Your task to perform on an android device: Do I have any events tomorrow? Image 0: 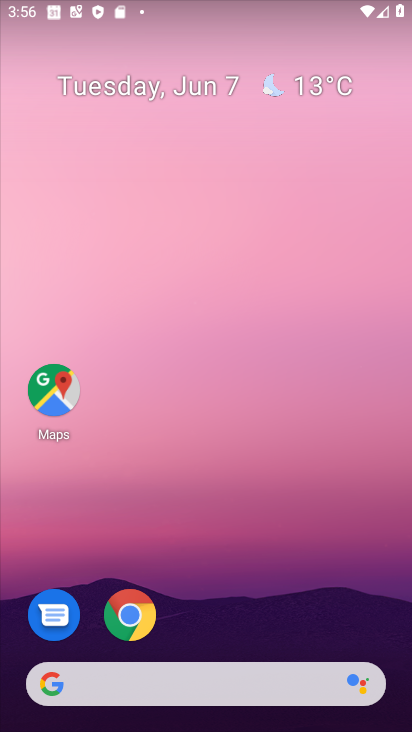
Step 0: drag from (192, 678) to (99, 70)
Your task to perform on an android device: Do I have any events tomorrow? Image 1: 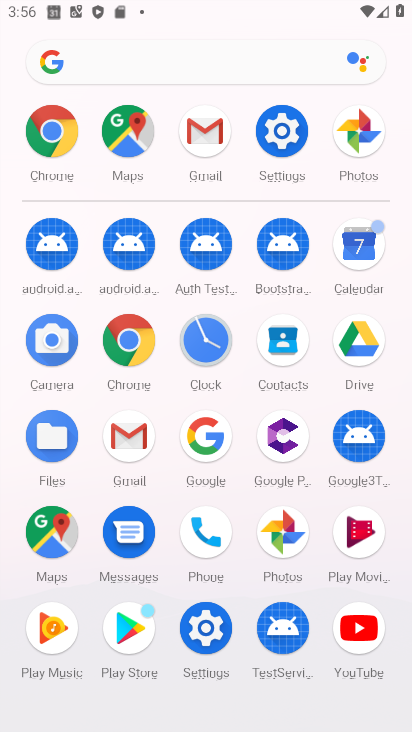
Step 1: click (45, 535)
Your task to perform on an android device: Do I have any events tomorrow? Image 2: 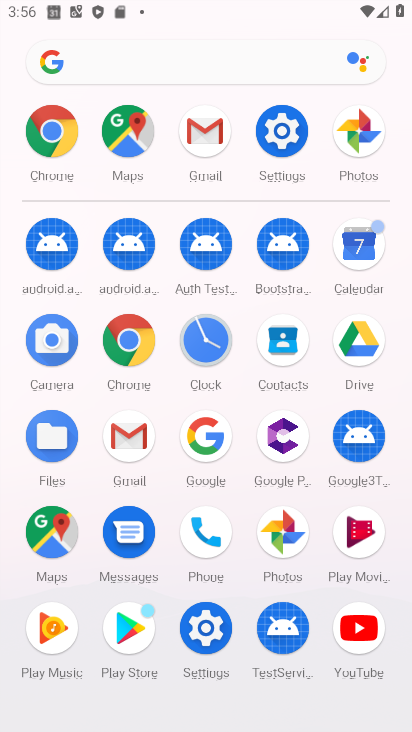
Step 2: click (45, 535)
Your task to perform on an android device: Do I have any events tomorrow? Image 3: 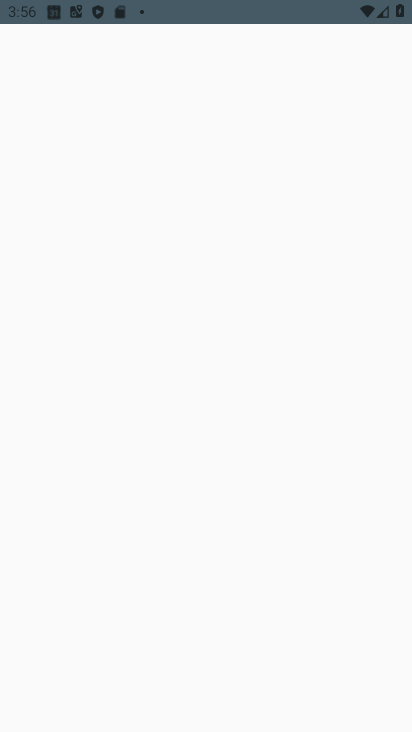
Step 3: click (45, 535)
Your task to perform on an android device: Do I have any events tomorrow? Image 4: 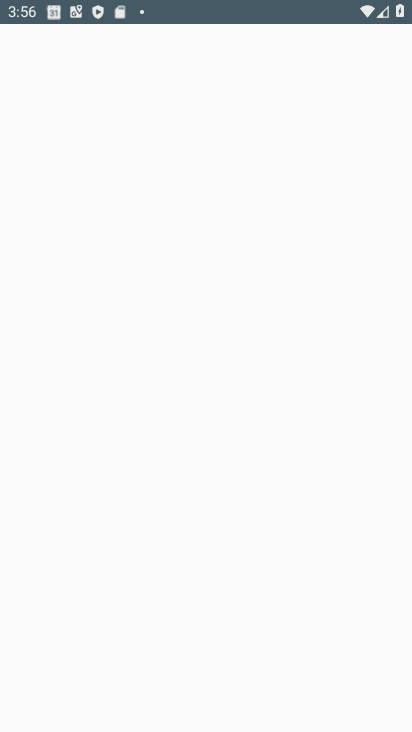
Step 4: click (48, 539)
Your task to perform on an android device: Do I have any events tomorrow? Image 5: 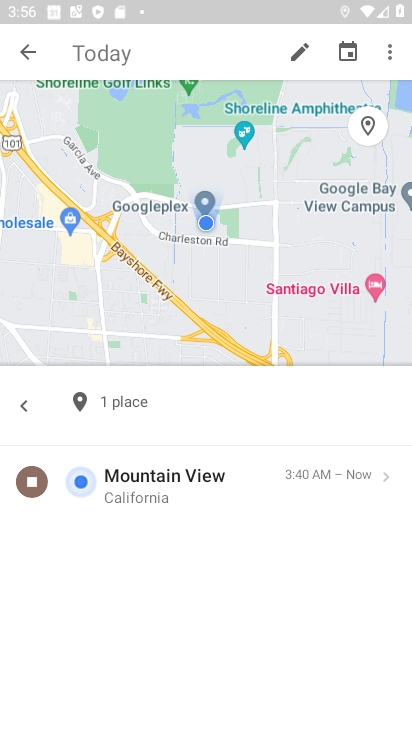
Step 5: click (23, 46)
Your task to perform on an android device: Do I have any events tomorrow? Image 6: 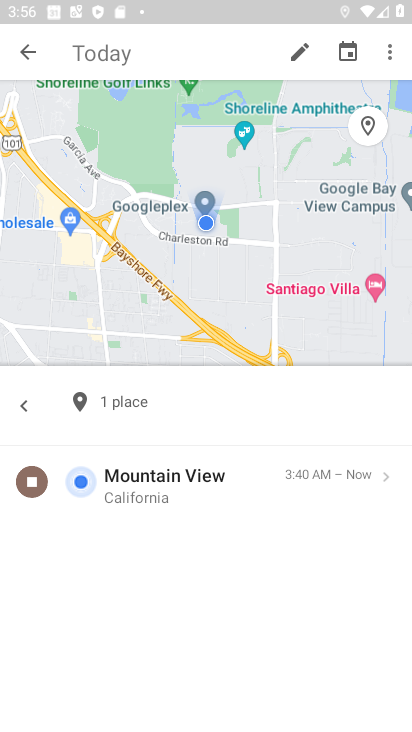
Step 6: click (23, 46)
Your task to perform on an android device: Do I have any events tomorrow? Image 7: 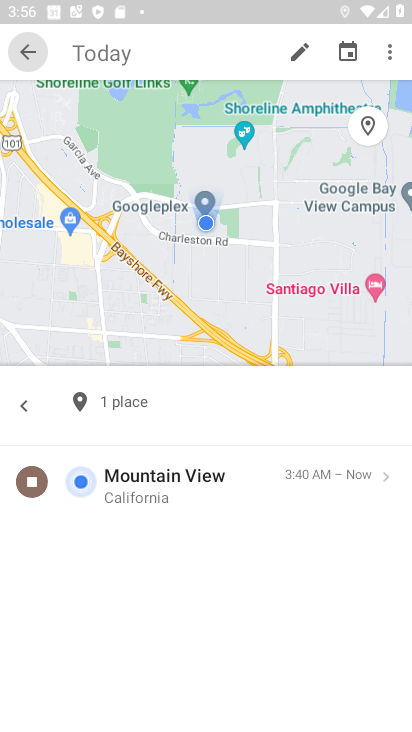
Step 7: click (24, 46)
Your task to perform on an android device: Do I have any events tomorrow? Image 8: 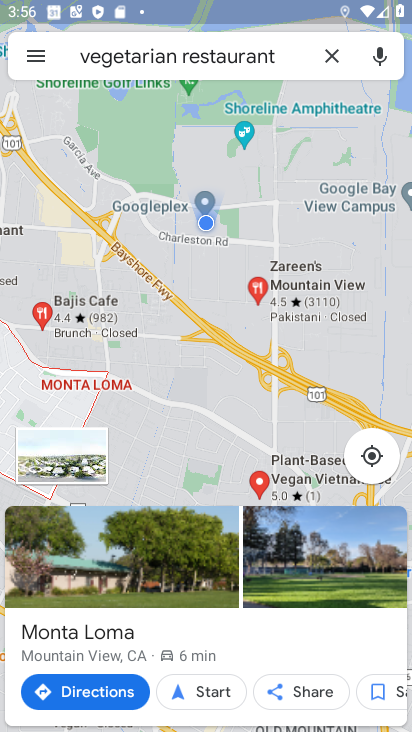
Step 8: press back button
Your task to perform on an android device: Do I have any events tomorrow? Image 9: 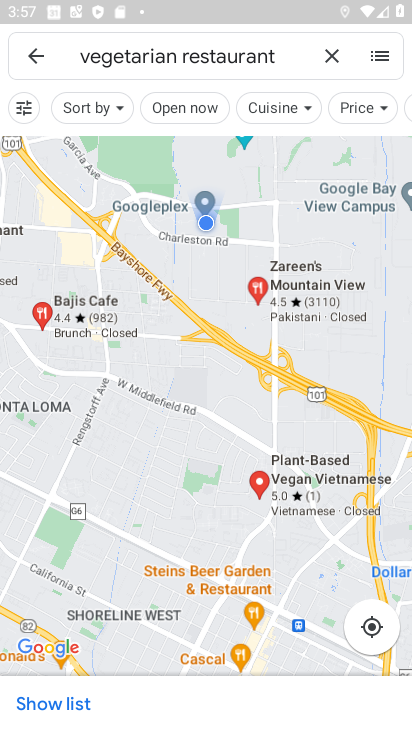
Step 9: press home button
Your task to perform on an android device: Do I have any events tomorrow? Image 10: 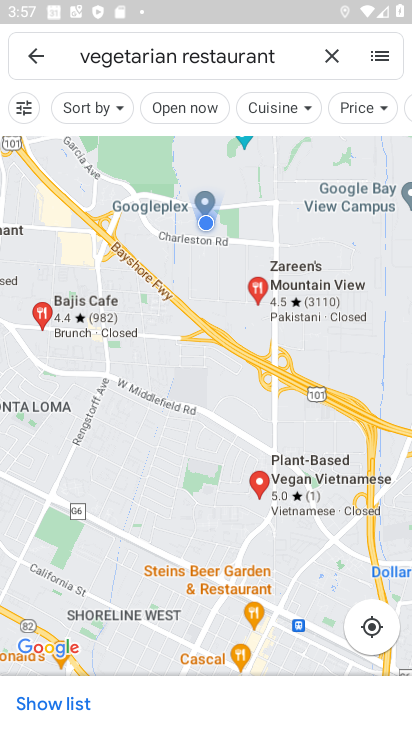
Step 10: press home button
Your task to perform on an android device: Do I have any events tomorrow? Image 11: 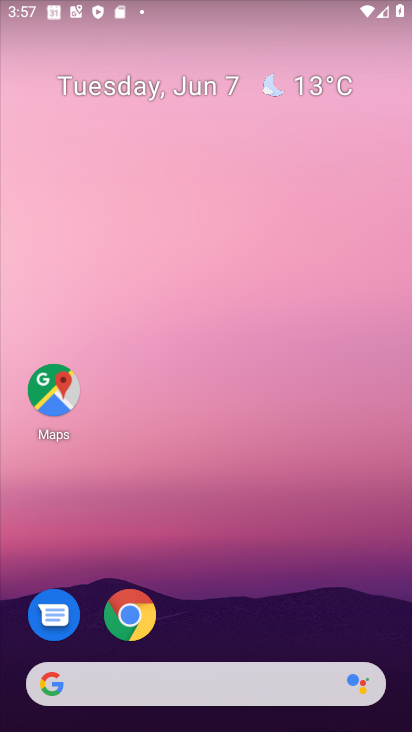
Step 11: drag from (212, 465) to (89, 39)
Your task to perform on an android device: Do I have any events tomorrow? Image 12: 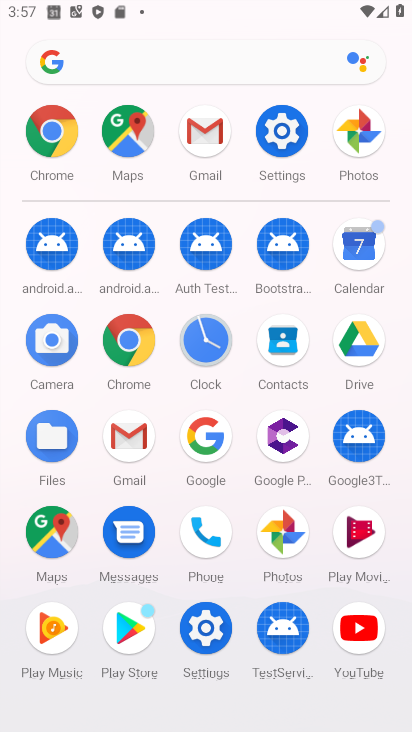
Step 12: click (351, 244)
Your task to perform on an android device: Do I have any events tomorrow? Image 13: 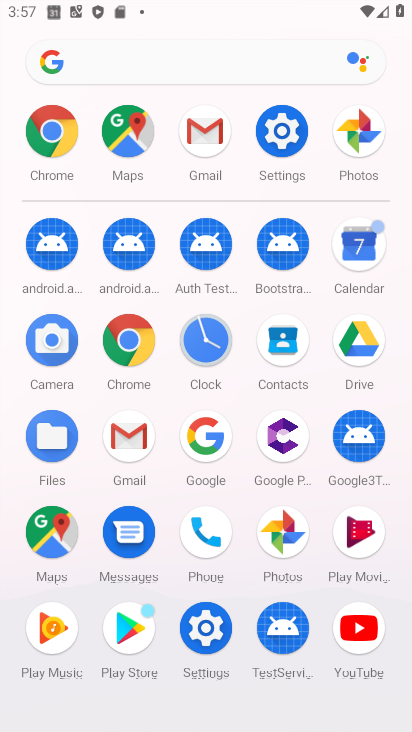
Step 13: click (352, 242)
Your task to perform on an android device: Do I have any events tomorrow? Image 14: 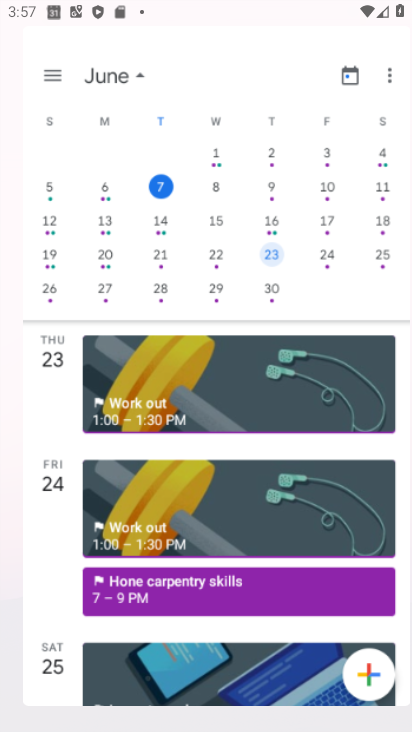
Step 14: click (352, 242)
Your task to perform on an android device: Do I have any events tomorrow? Image 15: 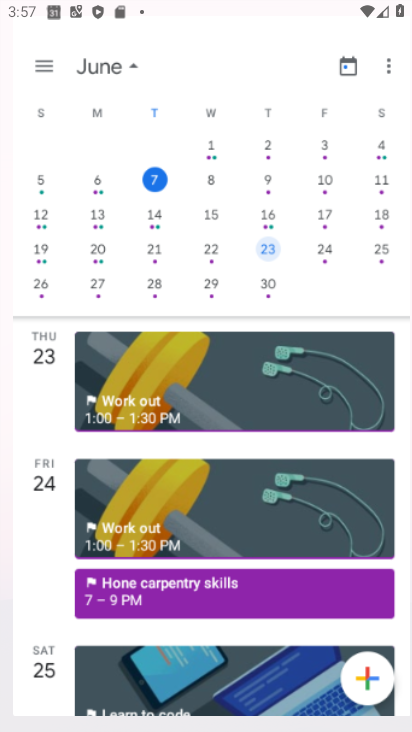
Step 15: click (352, 242)
Your task to perform on an android device: Do I have any events tomorrow? Image 16: 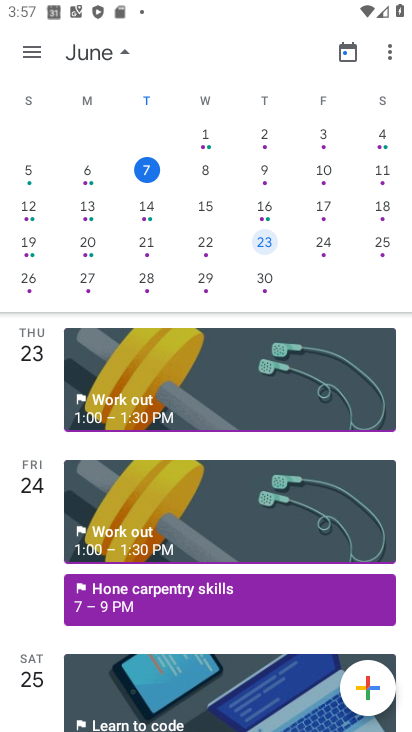
Step 16: click (208, 169)
Your task to perform on an android device: Do I have any events tomorrow? Image 17: 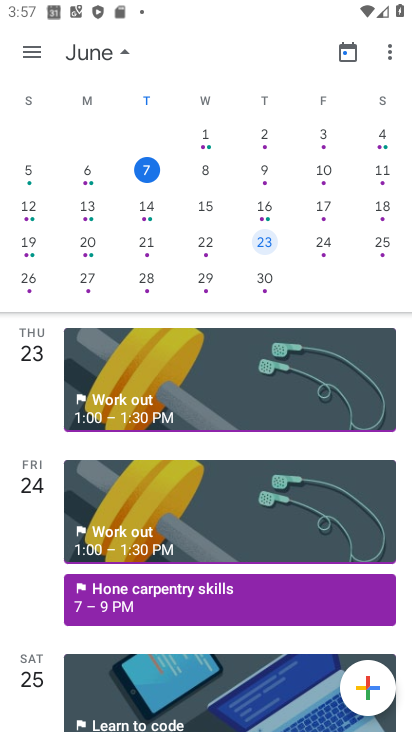
Step 17: click (208, 169)
Your task to perform on an android device: Do I have any events tomorrow? Image 18: 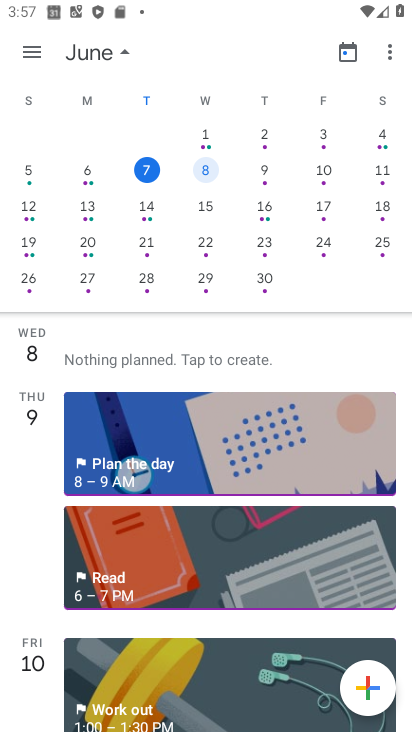
Step 18: click (208, 169)
Your task to perform on an android device: Do I have any events tomorrow? Image 19: 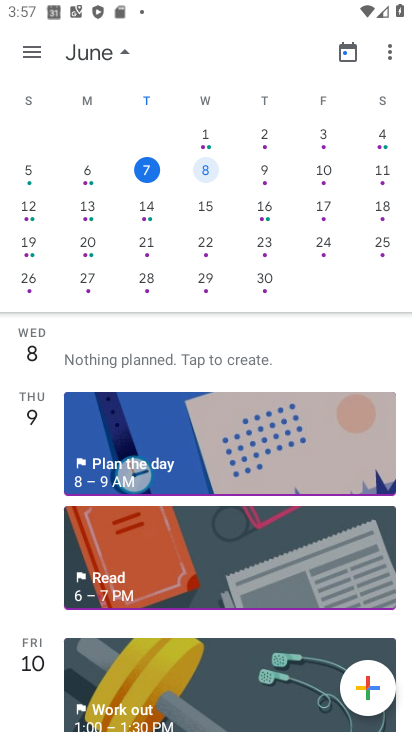
Step 19: click (208, 169)
Your task to perform on an android device: Do I have any events tomorrow? Image 20: 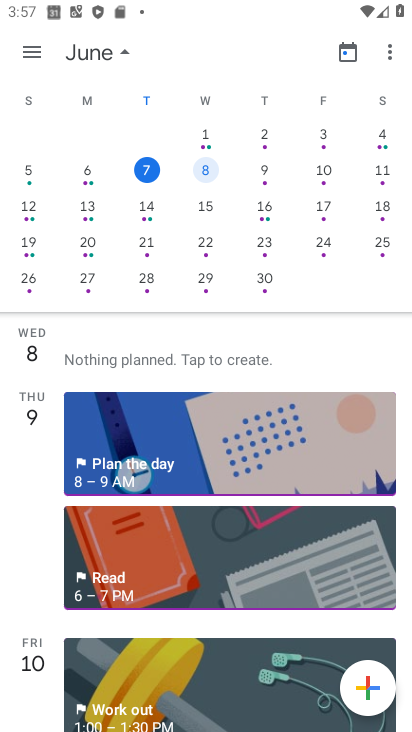
Step 20: task complete